Your task to perform on an android device: Go to Amazon Image 0: 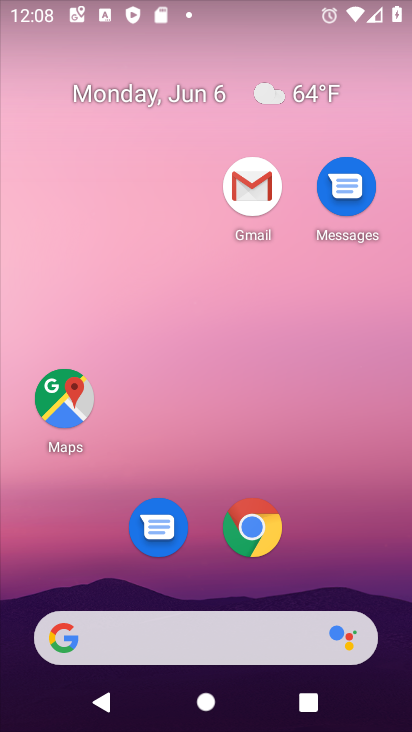
Step 0: drag from (319, 560) to (308, 69)
Your task to perform on an android device: Go to Amazon Image 1: 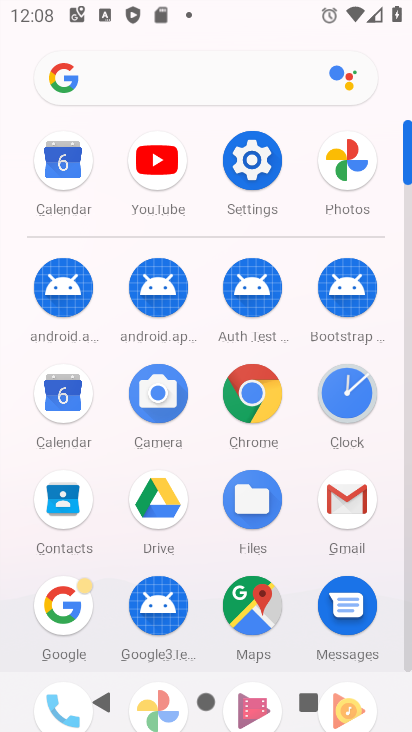
Step 1: click (254, 382)
Your task to perform on an android device: Go to Amazon Image 2: 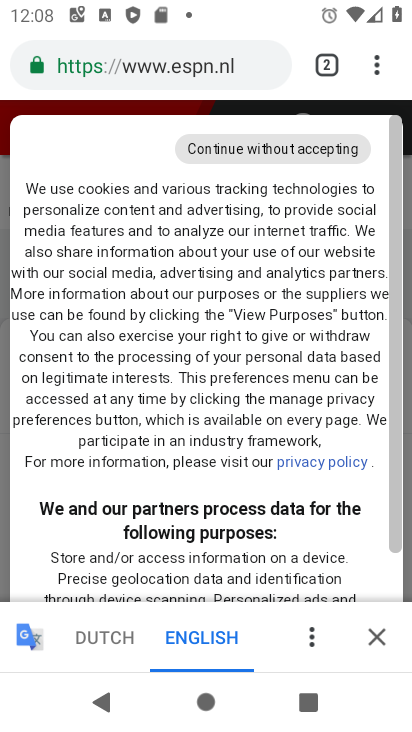
Step 2: click (324, 65)
Your task to perform on an android device: Go to Amazon Image 3: 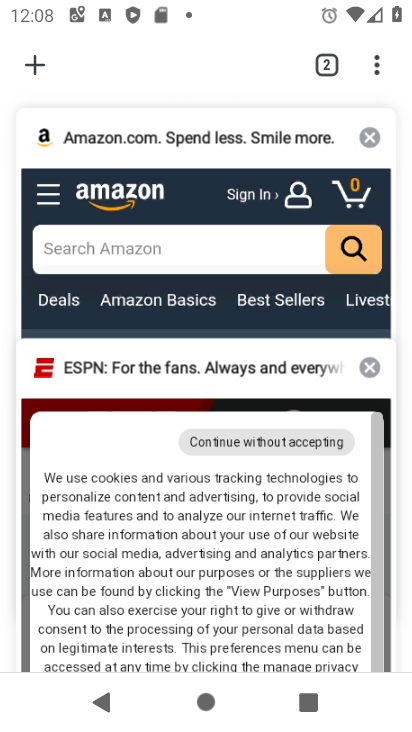
Step 3: click (160, 179)
Your task to perform on an android device: Go to Amazon Image 4: 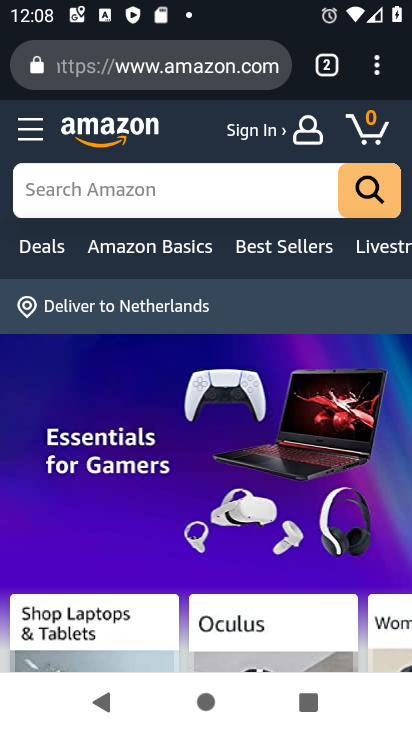
Step 4: task complete